Your task to perform on an android device: Open the Play Movies app and select the watchlist tab. Image 0: 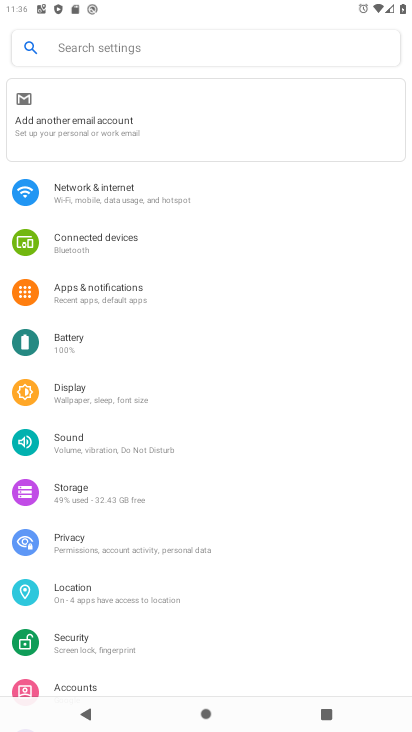
Step 0: press home button
Your task to perform on an android device: Open the Play Movies app and select the watchlist tab. Image 1: 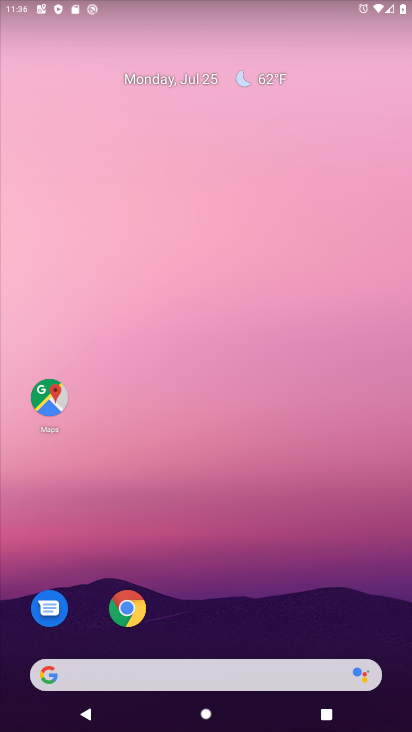
Step 1: drag from (215, 636) to (250, 63)
Your task to perform on an android device: Open the Play Movies app and select the watchlist tab. Image 2: 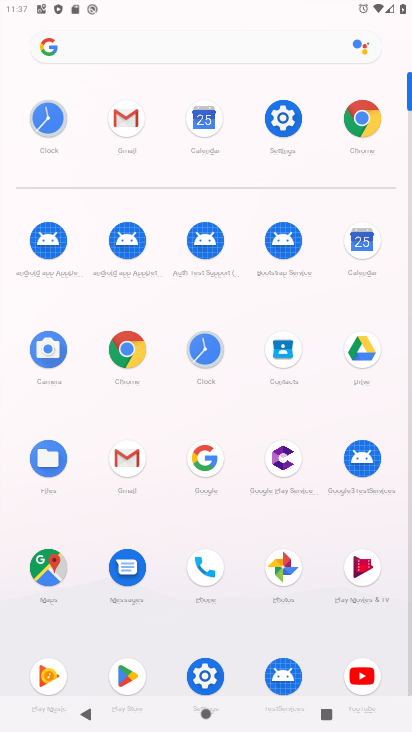
Step 2: click (363, 570)
Your task to perform on an android device: Open the Play Movies app and select the watchlist tab. Image 3: 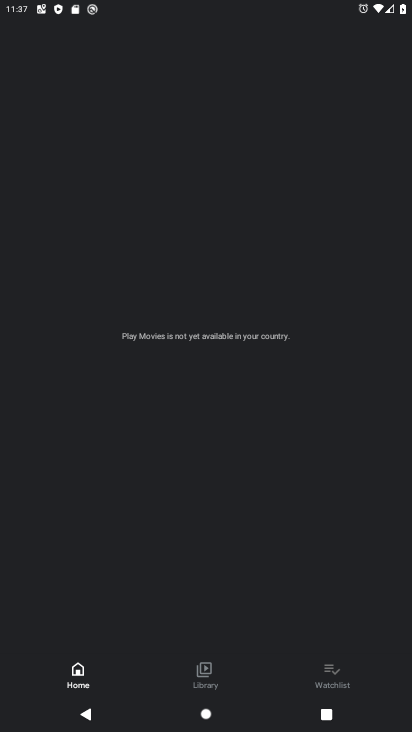
Step 3: click (331, 675)
Your task to perform on an android device: Open the Play Movies app and select the watchlist tab. Image 4: 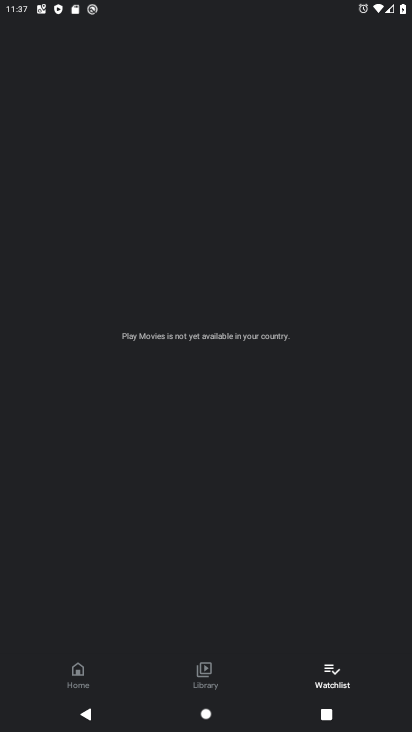
Step 4: task complete